Your task to perform on an android device: turn pop-ups off in chrome Image 0: 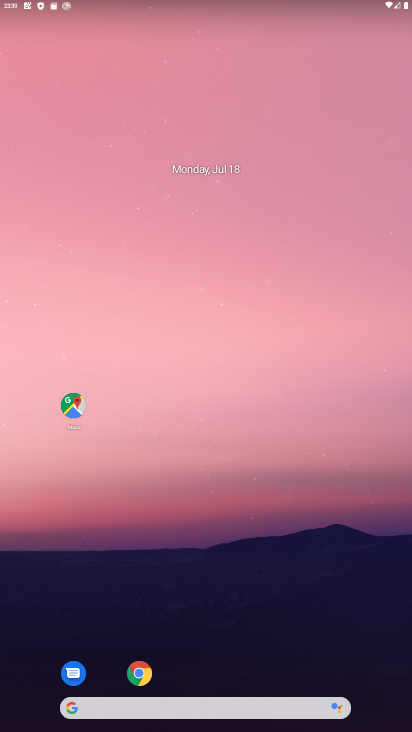
Step 0: drag from (261, 668) to (283, 339)
Your task to perform on an android device: turn pop-ups off in chrome Image 1: 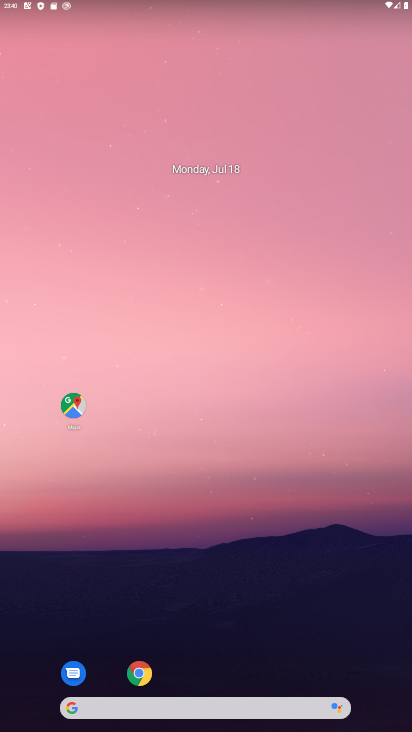
Step 1: drag from (218, 629) to (230, 166)
Your task to perform on an android device: turn pop-ups off in chrome Image 2: 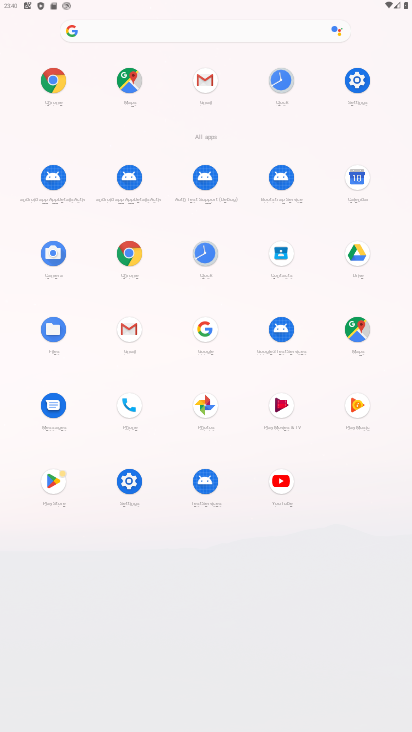
Step 2: click (137, 249)
Your task to perform on an android device: turn pop-ups off in chrome Image 3: 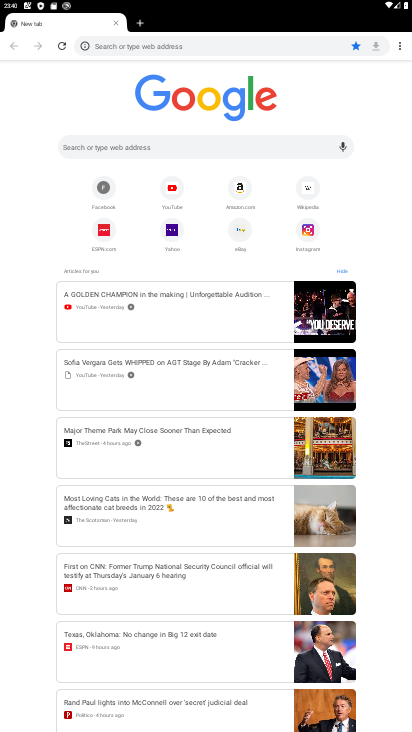
Step 3: click (402, 44)
Your task to perform on an android device: turn pop-ups off in chrome Image 4: 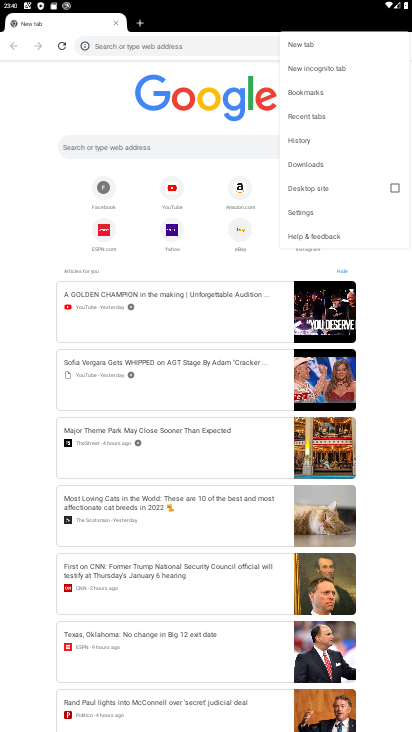
Step 4: click (297, 214)
Your task to perform on an android device: turn pop-ups off in chrome Image 5: 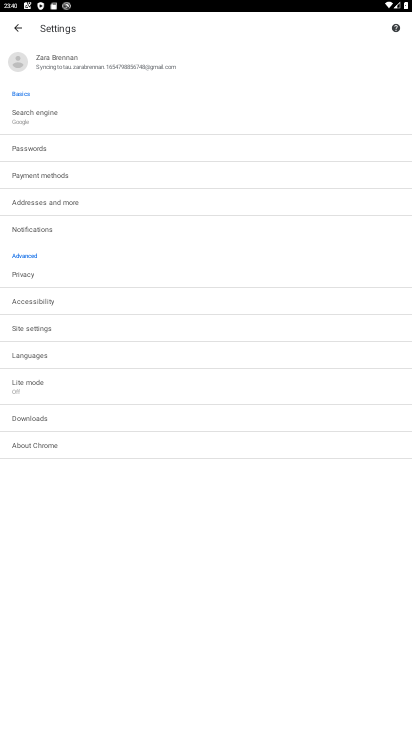
Step 5: click (61, 327)
Your task to perform on an android device: turn pop-ups off in chrome Image 6: 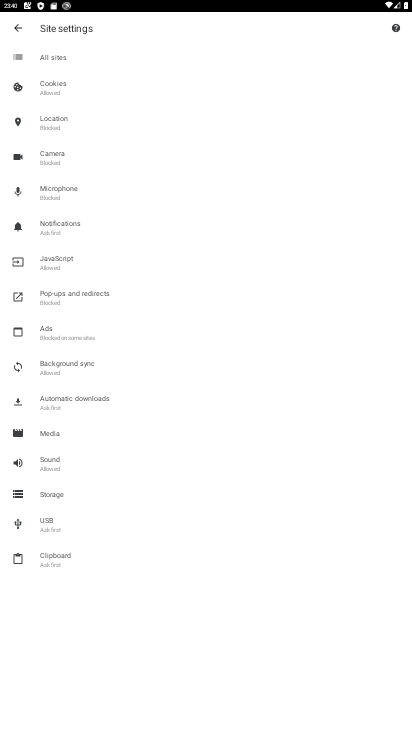
Step 6: task complete